Your task to perform on an android device: turn vacation reply on in the gmail app Image 0: 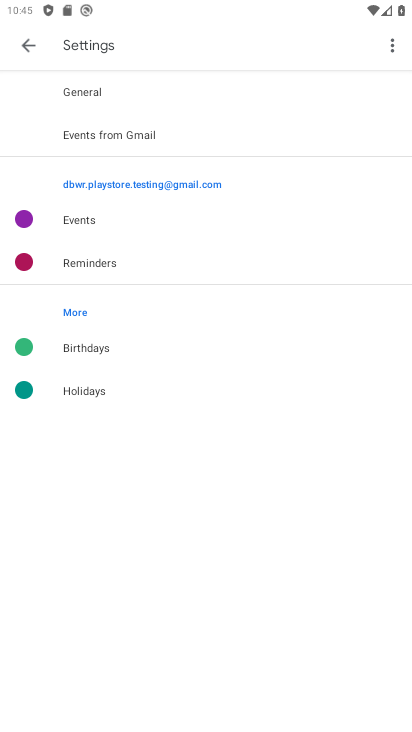
Step 0: press back button
Your task to perform on an android device: turn vacation reply on in the gmail app Image 1: 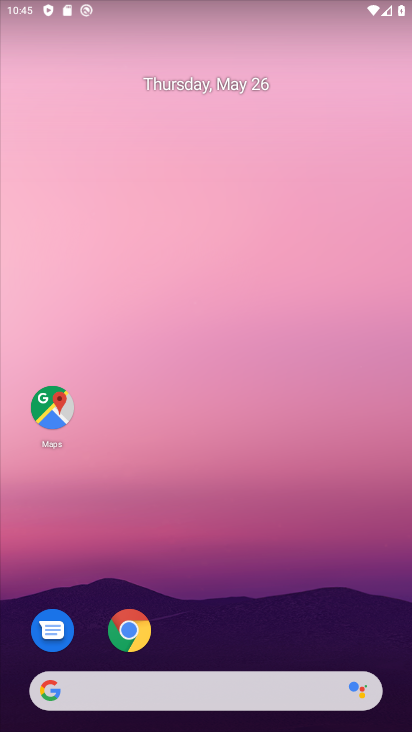
Step 1: drag from (260, 605) to (279, 168)
Your task to perform on an android device: turn vacation reply on in the gmail app Image 2: 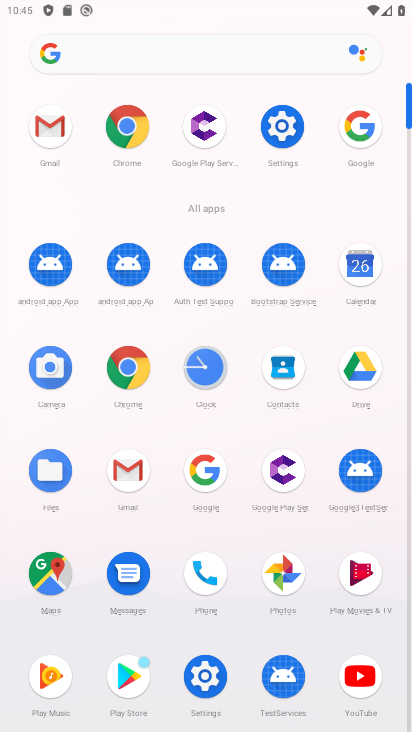
Step 2: click (50, 127)
Your task to perform on an android device: turn vacation reply on in the gmail app Image 3: 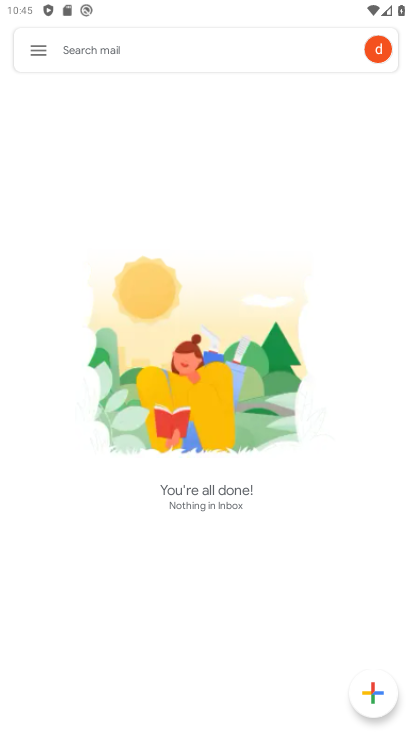
Step 3: click (35, 48)
Your task to perform on an android device: turn vacation reply on in the gmail app Image 4: 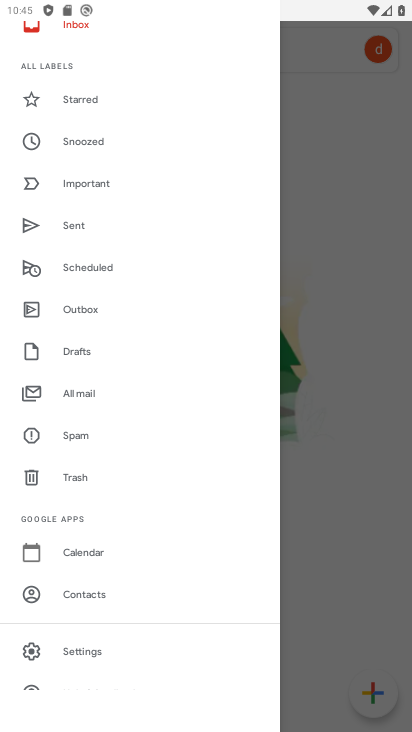
Step 4: drag from (85, 495) to (115, 422)
Your task to perform on an android device: turn vacation reply on in the gmail app Image 5: 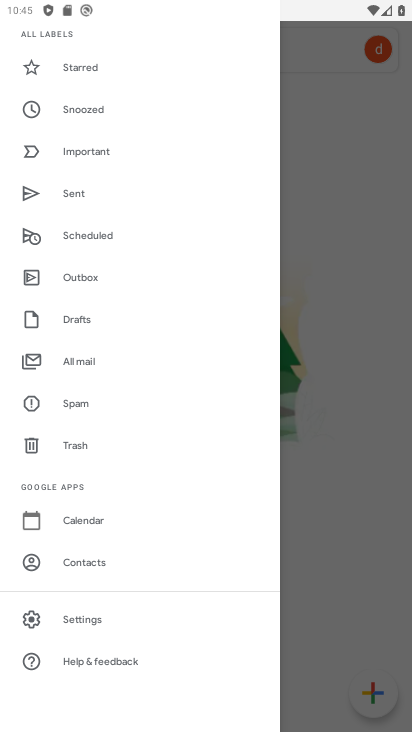
Step 5: click (97, 615)
Your task to perform on an android device: turn vacation reply on in the gmail app Image 6: 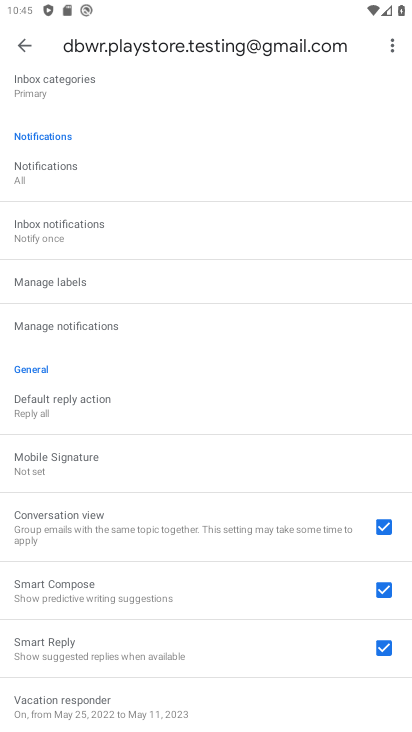
Step 6: drag from (101, 562) to (180, 465)
Your task to perform on an android device: turn vacation reply on in the gmail app Image 7: 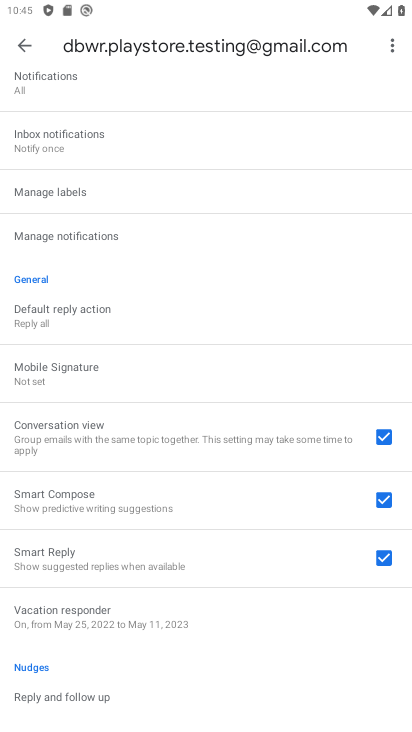
Step 7: click (80, 625)
Your task to perform on an android device: turn vacation reply on in the gmail app Image 8: 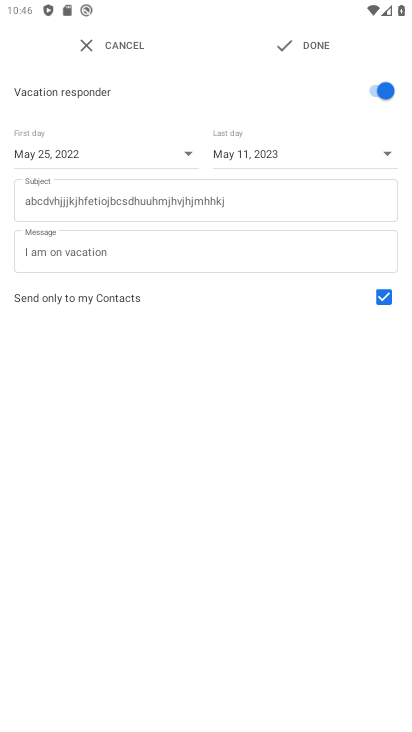
Step 8: task complete